Your task to perform on an android device: turn on bluetooth scan Image 0: 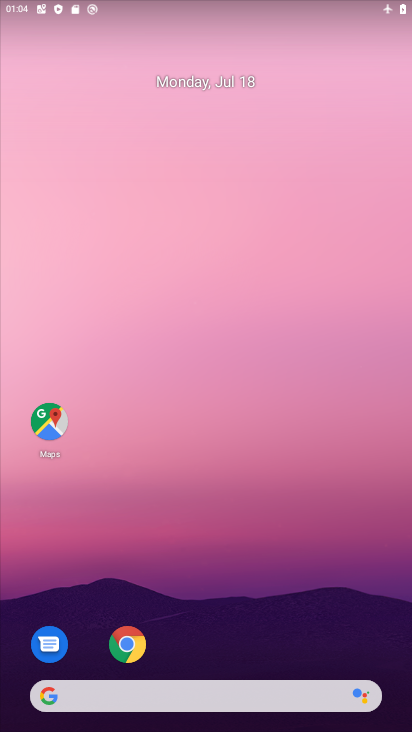
Step 0: press home button
Your task to perform on an android device: turn on bluetooth scan Image 1: 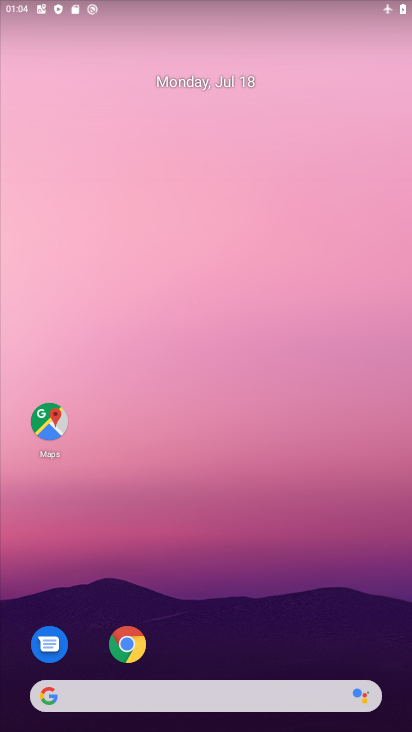
Step 1: drag from (262, 621) to (272, 64)
Your task to perform on an android device: turn on bluetooth scan Image 2: 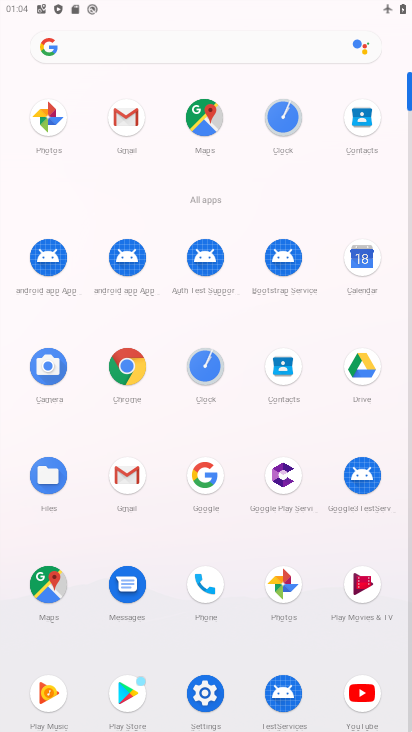
Step 2: click (190, 704)
Your task to perform on an android device: turn on bluetooth scan Image 3: 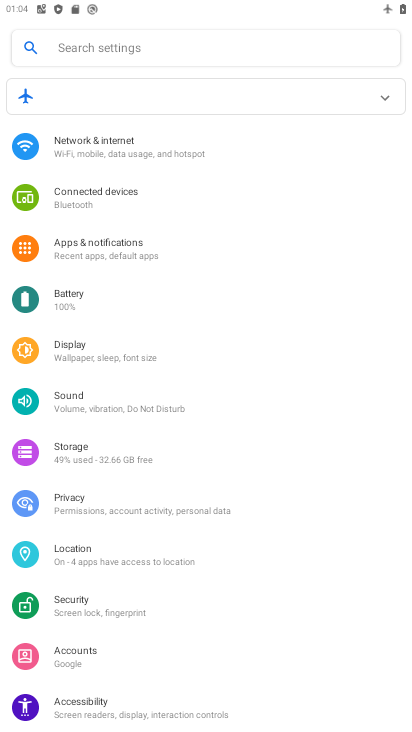
Step 3: click (95, 549)
Your task to perform on an android device: turn on bluetooth scan Image 4: 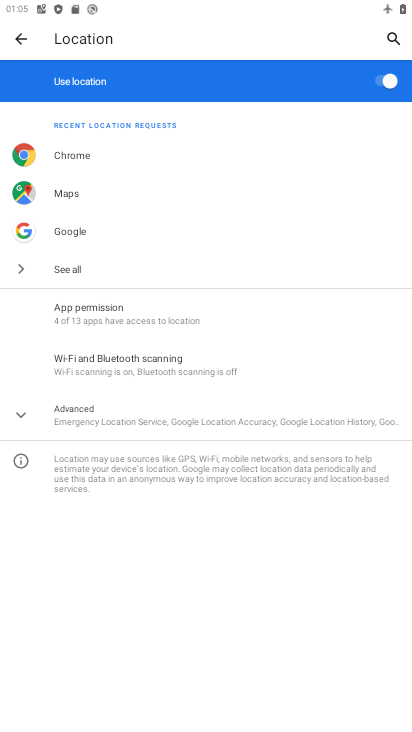
Step 4: click (99, 369)
Your task to perform on an android device: turn on bluetooth scan Image 5: 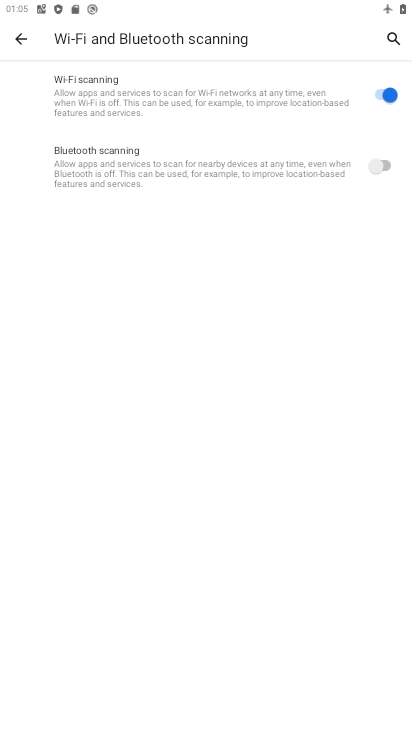
Step 5: click (306, 194)
Your task to perform on an android device: turn on bluetooth scan Image 6: 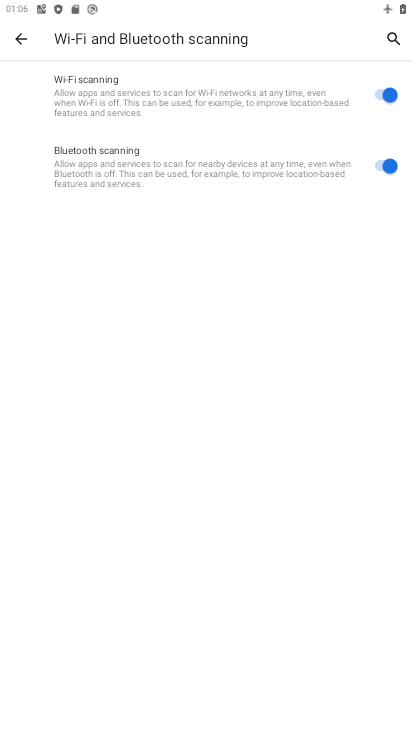
Step 6: task complete